Your task to perform on an android device: set default search engine in the chrome app Image 0: 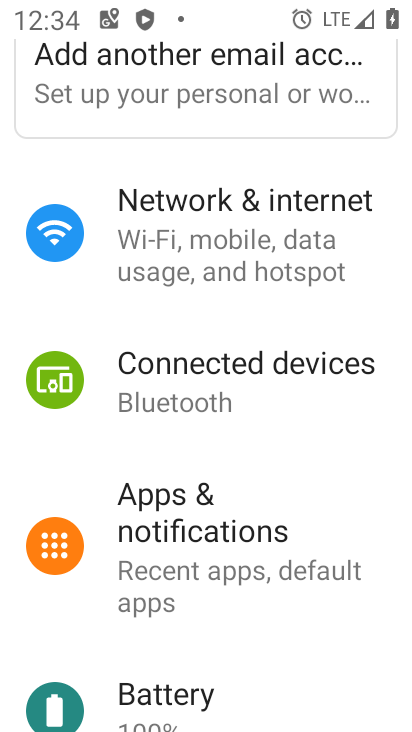
Step 0: press home button
Your task to perform on an android device: set default search engine in the chrome app Image 1: 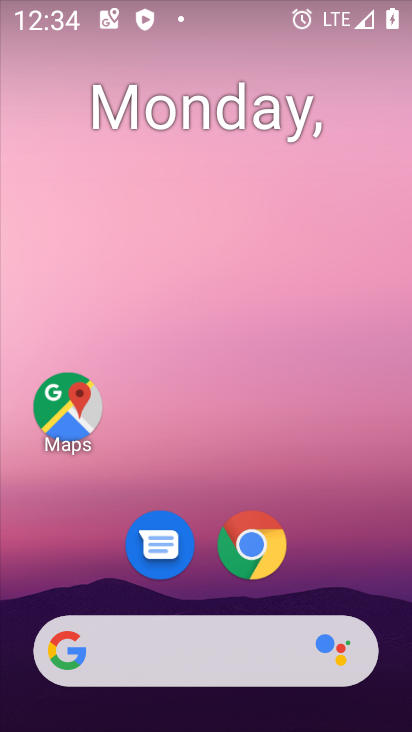
Step 1: drag from (377, 581) to (368, 212)
Your task to perform on an android device: set default search engine in the chrome app Image 2: 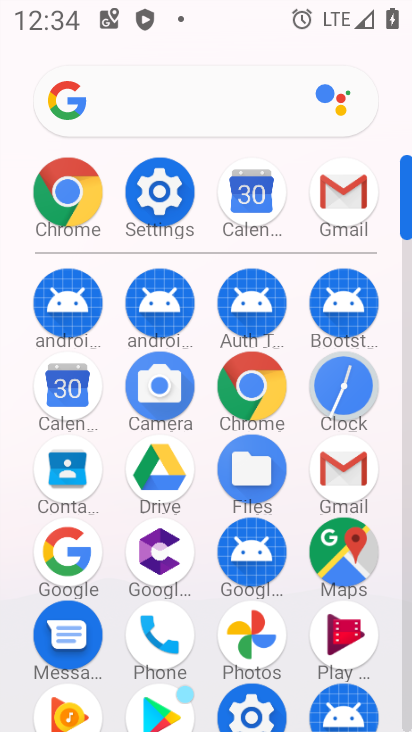
Step 2: click (275, 409)
Your task to perform on an android device: set default search engine in the chrome app Image 3: 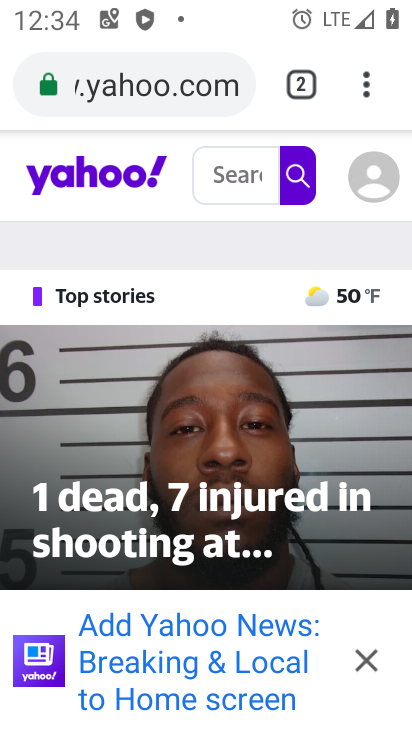
Step 3: click (368, 95)
Your task to perform on an android device: set default search engine in the chrome app Image 4: 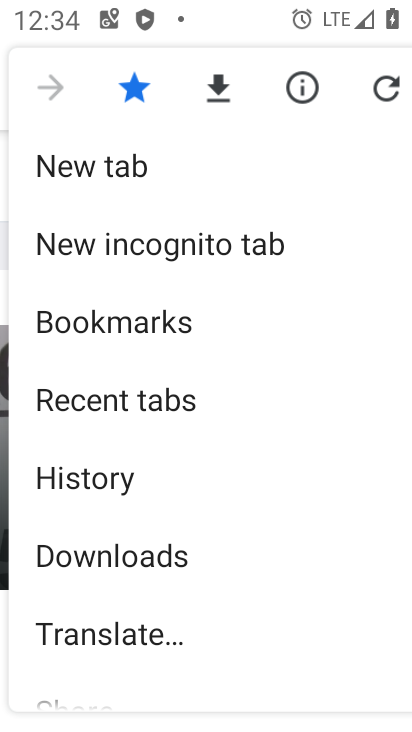
Step 4: drag from (301, 445) to (328, 363)
Your task to perform on an android device: set default search engine in the chrome app Image 5: 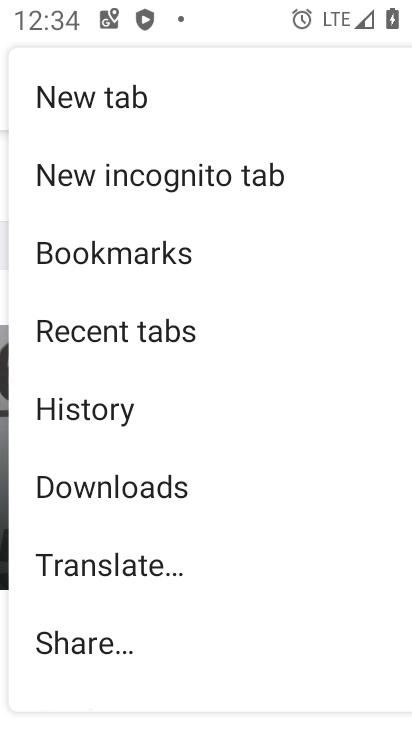
Step 5: drag from (335, 488) to (347, 379)
Your task to perform on an android device: set default search engine in the chrome app Image 6: 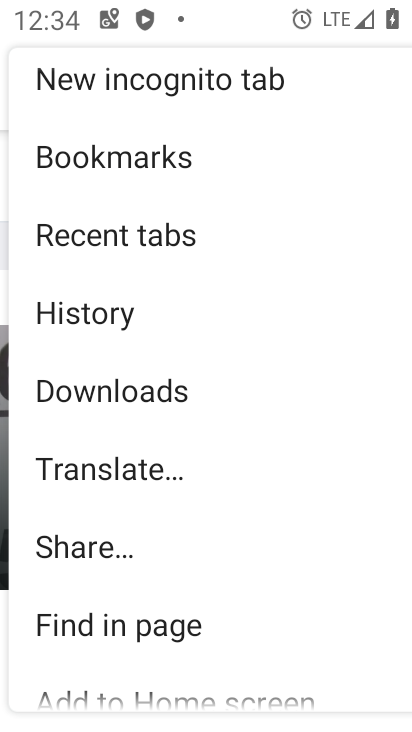
Step 6: drag from (337, 479) to (342, 394)
Your task to perform on an android device: set default search engine in the chrome app Image 7: 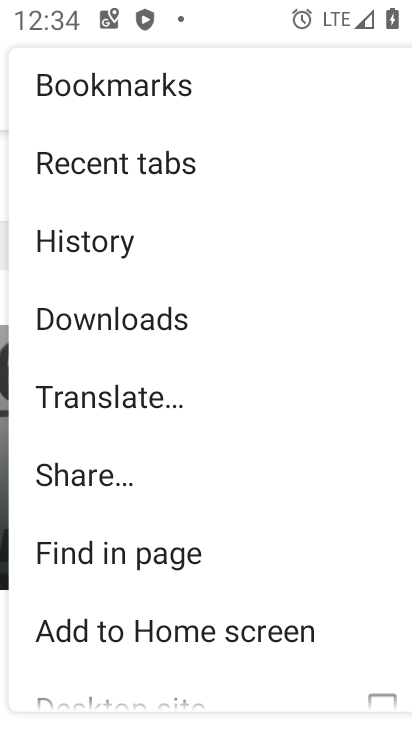
Step 7: drag from (334, 454) to (336, 389)
Your task to perform on an android device: set default search engine in the chrome app Image 8: 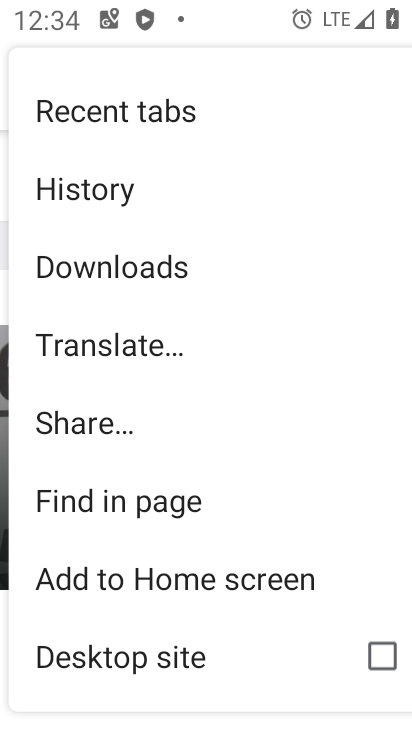
Step 8: drag from (332, 485) to (329, 375)
Your task to perform on an android device: set default search engine in the chrome app Image 9: 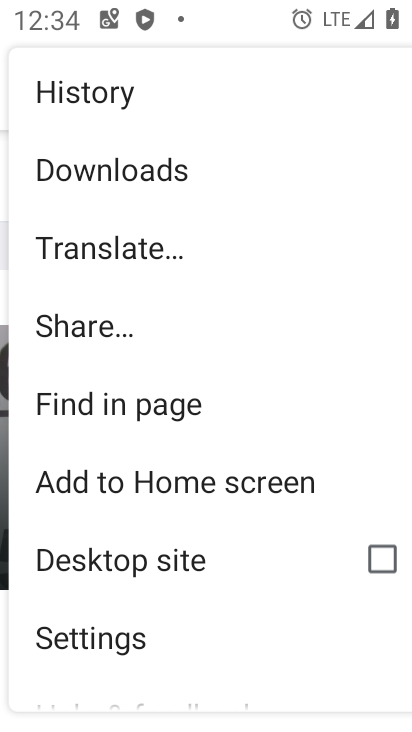
Step 9: drag from (337, 281) to (329, 344)
Your task to perform on an android device: set default search engine in the chrome app Image 10: 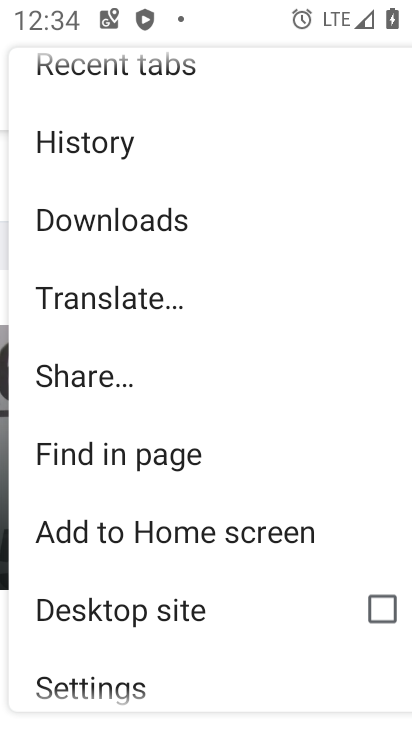
Step 10: drag from (342, 268) to (325, 368)
Your task to perform on an android device: set default search engine in the chrome app Image 11: 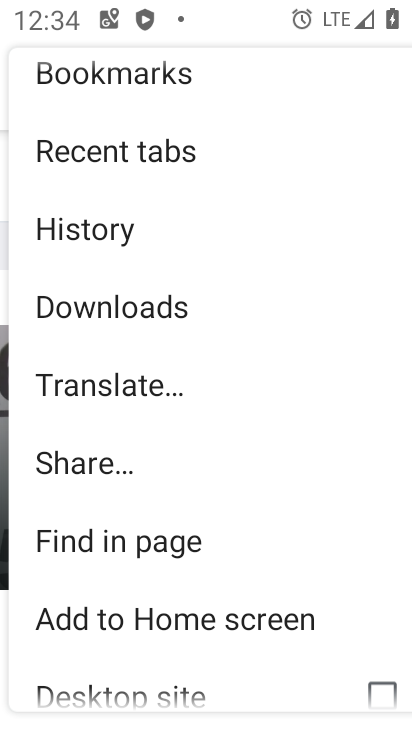
Step 11: drag from (341, 268) to (341, 340)
Your task to perform on an android device: set default search engine in the chrome app Image 12: 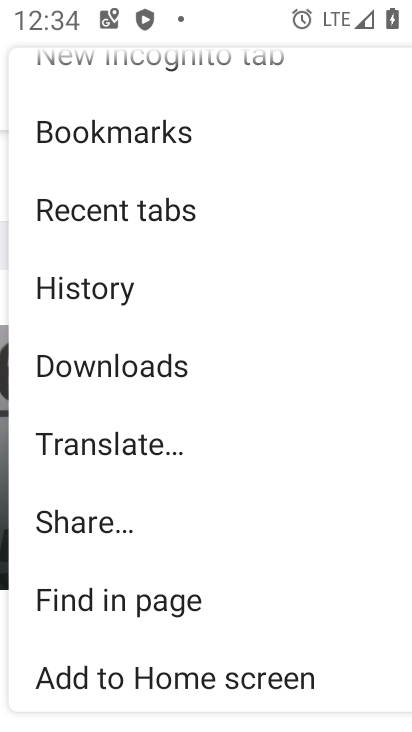
Step 12: drag from (340, 314) to (344, 421)
Your task to perform on an android device: set default search engine in the chrome app Image 13: 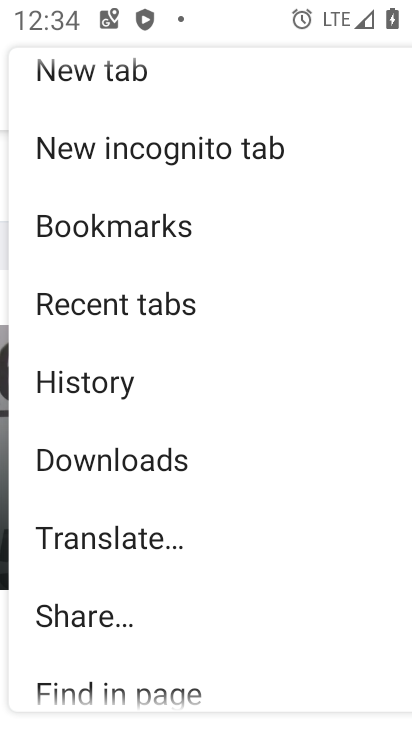
Step 13: drag from (345, 279) to (332, 428)
Your task to perform on an android device: set default search engine in the chrome app Image 14: 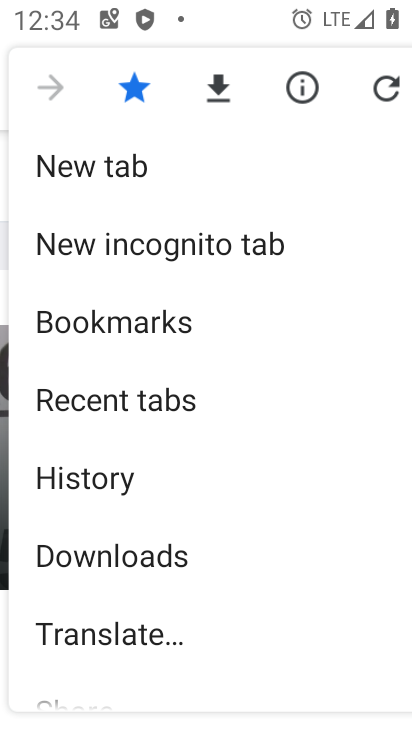
Step 14: click (344, 322)
Your task to perform on an android device: set default search engine in the chrome app Image 15: 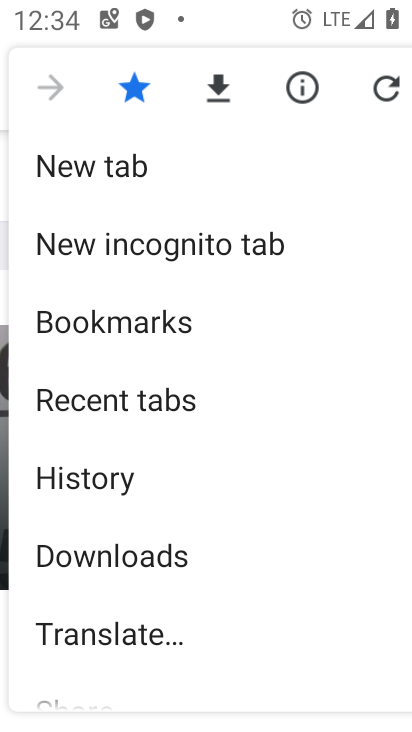
Step 15: drag from (344, 265) to (337, 445)
Your task to perform on an android device: set default search engine in the chrome app Image 16: 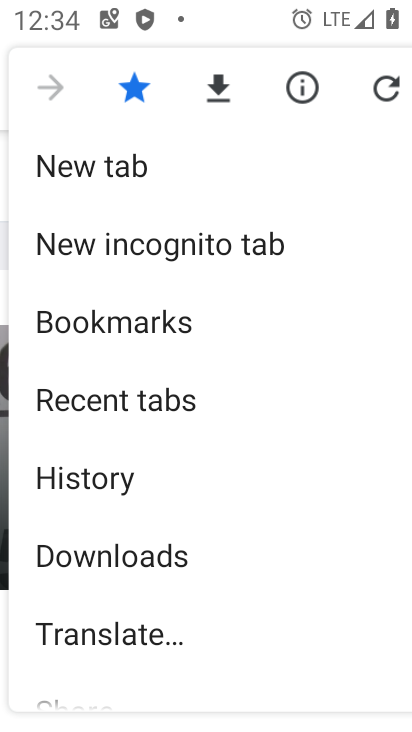
Step 16: drag from (331, 469) to (356, 262)
Your task to perform on an android device: set default search engine in the chrome app Image 17: 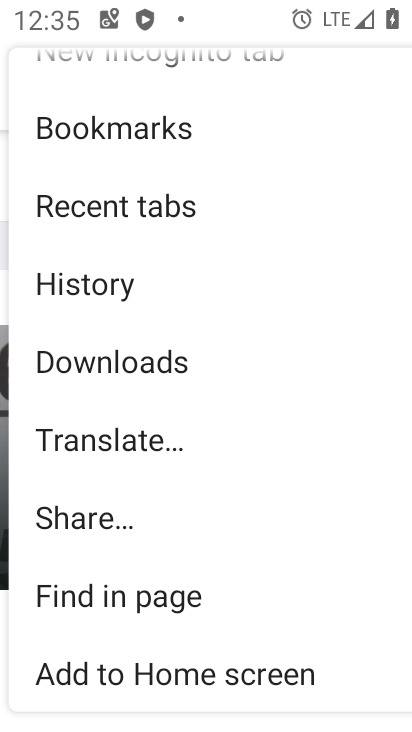
Step 17: drag from (318, 469) to (322, 312)
Your task to perform on an android device: set default search engine in the chrome app Image 18: 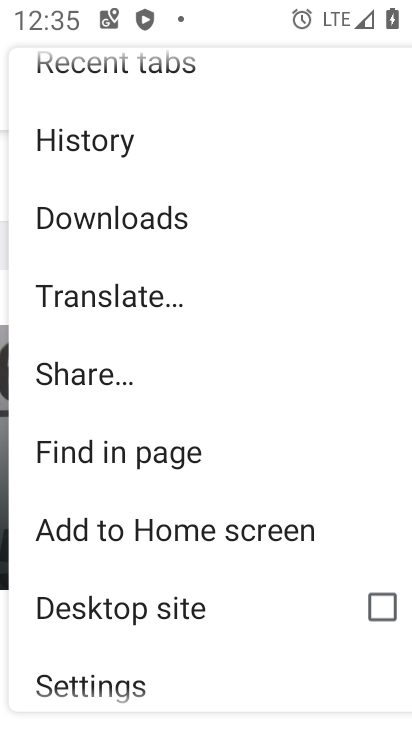
Step 18: drag from (290, 585) to (316, 359)
Your task to perform on an android device: set default search engine in the chrome app Image 19: 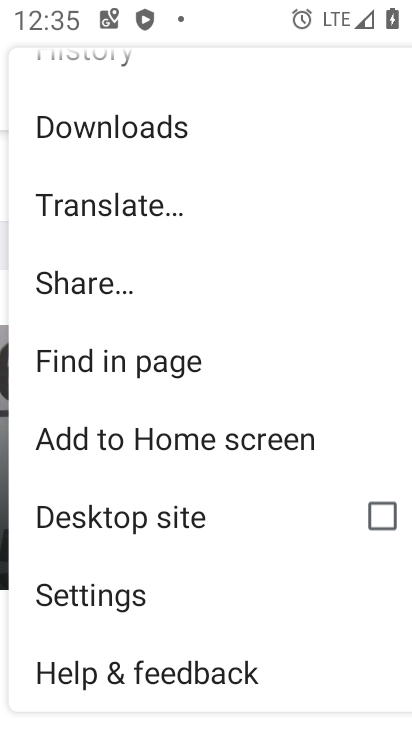
Step 19: click (213, 618)
Your task to perform on an android device: set default search engine in the chrome app Image 20: 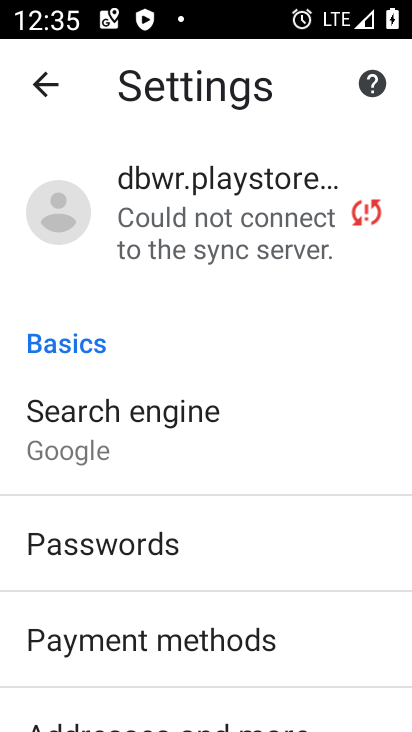
Step 20: click (249, 444)
Your task to perform on an android device: set default search engine in the chrome app Image 21: 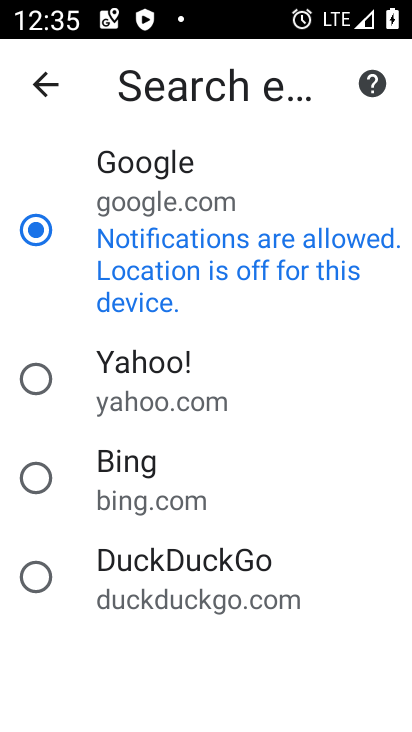
Step 21: click (216, 469)
Your task to perform on an android device: set default search engine in the chrome app Image 22: 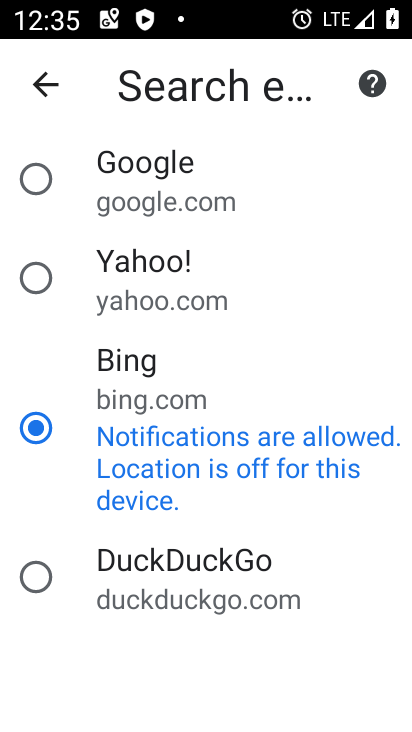
Step 22: task complete